Your task to perform on an android device: toggle notification dots Image 0: 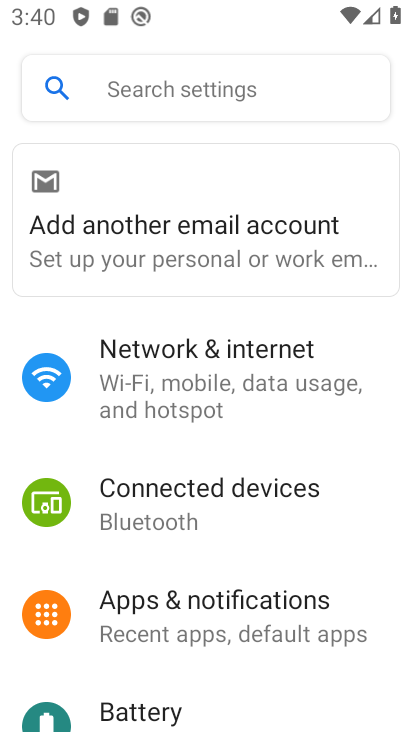
Step 0: drag from (380, 566) to (380, 384)
Your task to perform on an android device: toggle notification dots Image 1: 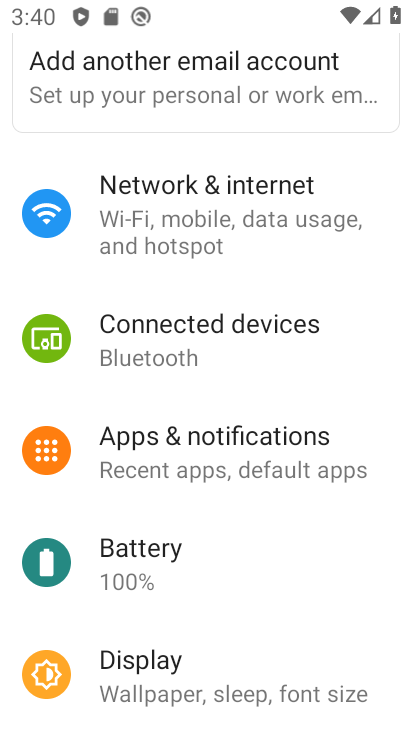
Step 1: drag from (356, 613) to (378, 394)
Your task to perform on an android device: toggle notification dots Image 2: 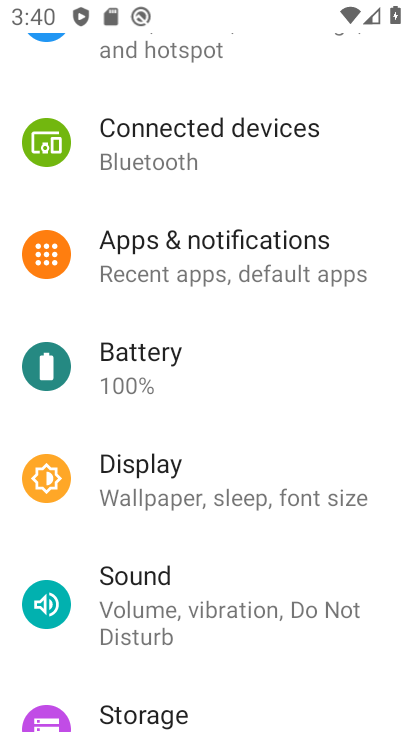
Step 2: drag from (372, 649) to (379, 454)
Your task to perform on an android device: toggle notification dots Image 3: 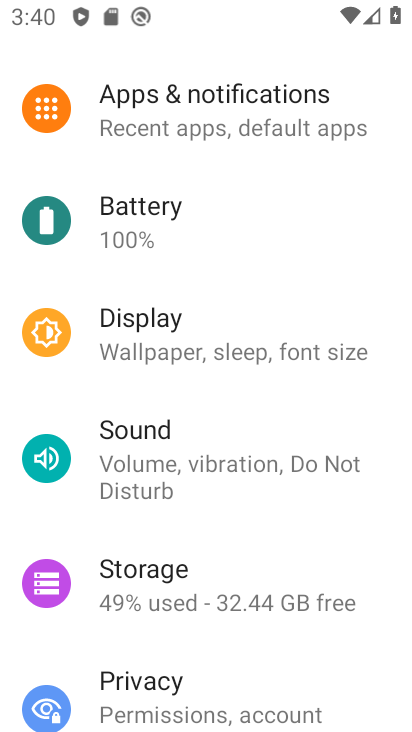
Step 3: drag from (362, 669) to (381, 454)
Your task to perform on an android device: toggle notification dots Image 4: 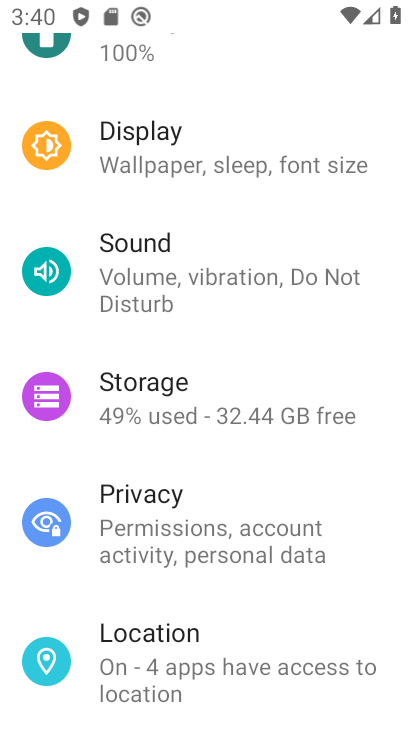
Step 4: drag from (369, 634) to (380, 439)
Your task to perform on an android device: toggle notification dots Image 5: 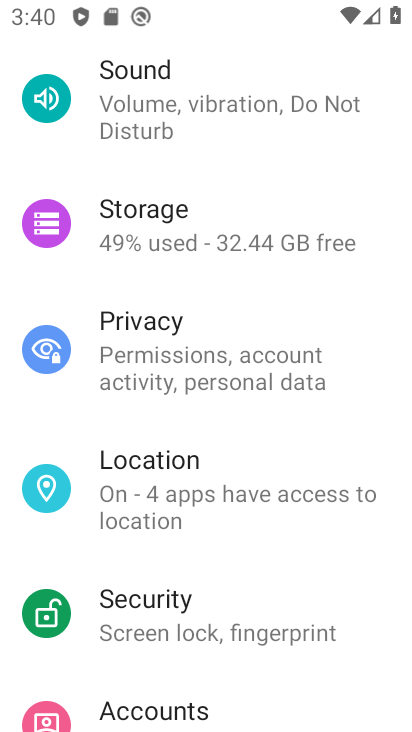
Step 5: drag from (353, 670) to (343, 314)
Your task to perform on an android device: toggle notification dots Image 6: 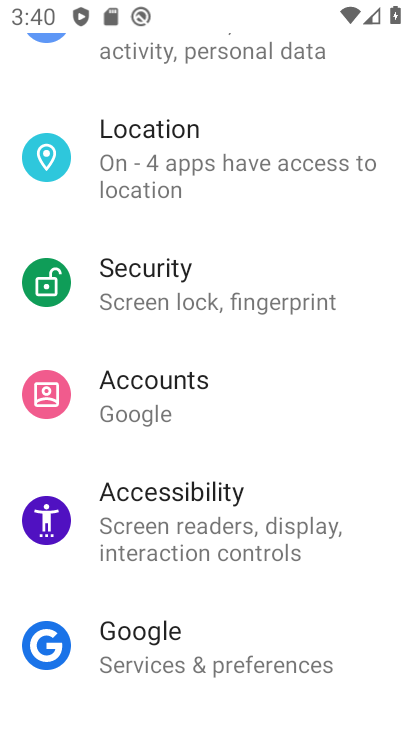
Step 6: drag from (372, 398) to (374, 503)
Your task to perform on an android device: toggle notification dots Image 7: 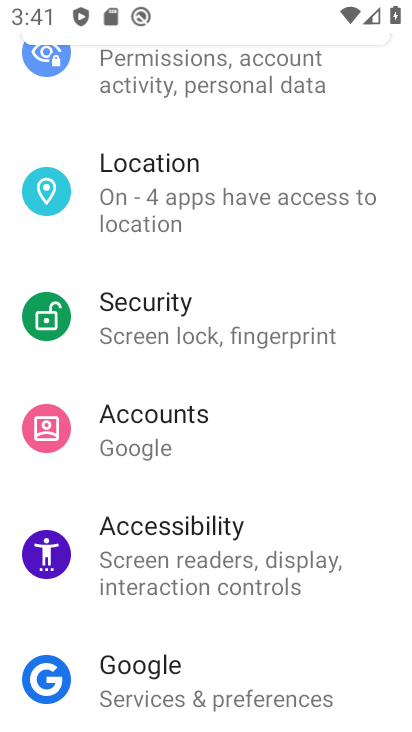
Step 7: drag from (374, 385) to (373, 518)
Your task to perform on an android device: toggle notification dots Image 8: 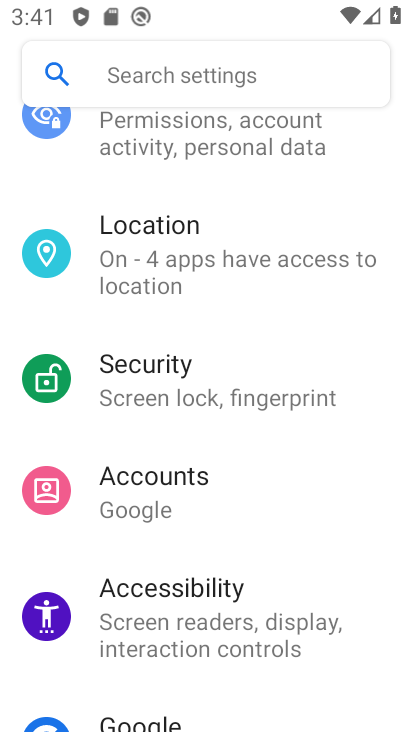
Step 8: drag from (360, 340) to (354, 575)
Your task to perform on an android device: toggle notification dots Image 9: 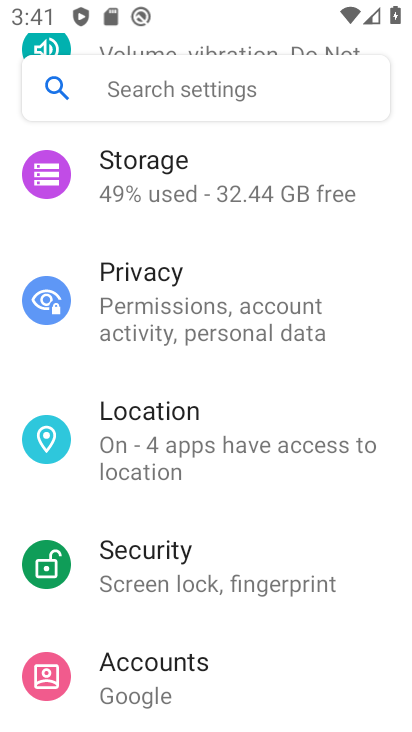
Step 9: drag from (354, 283) to (344, 516)
Your task to perform on an android device: toggle notification dots Image 10: 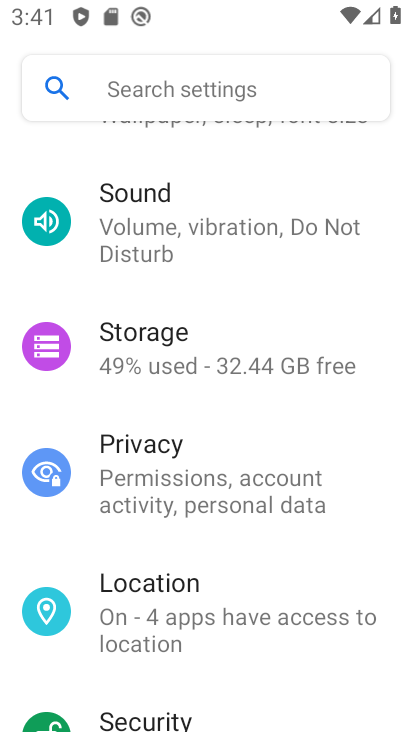
Step 10: drag from (376, 286) to (363, 482)
Your task to perform on an android device: toggle notification dots Image 11: 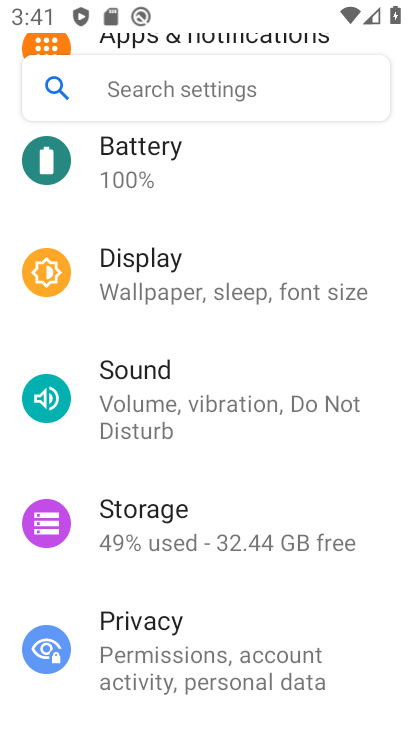
Step 11: drag from (363, 304) to (353, 497)
Your task to perform on an android device: toggle notification dots Image 12: 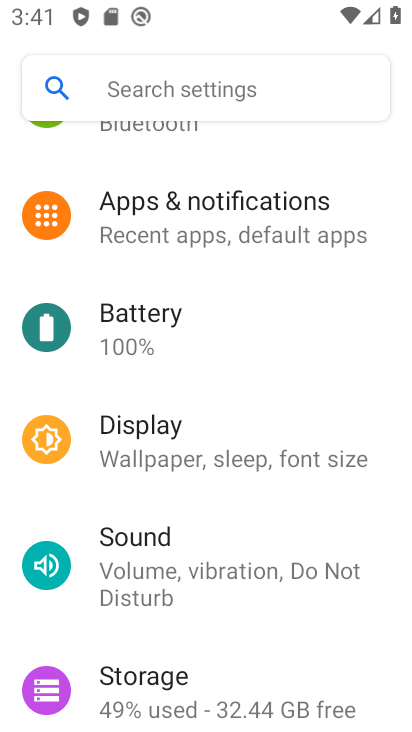
Step 12: click (282, 223)
Your task to perform on an android device: toggle notification dots Image 13: 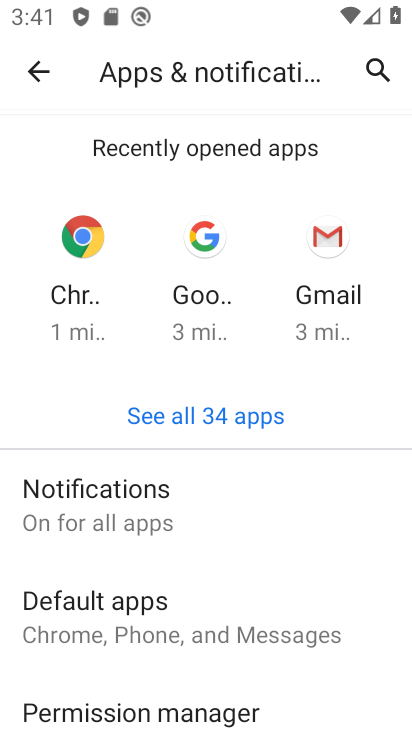
Step 13: click (144, 521)
Your task to perform on an android device: toggle notification dots Image 14: 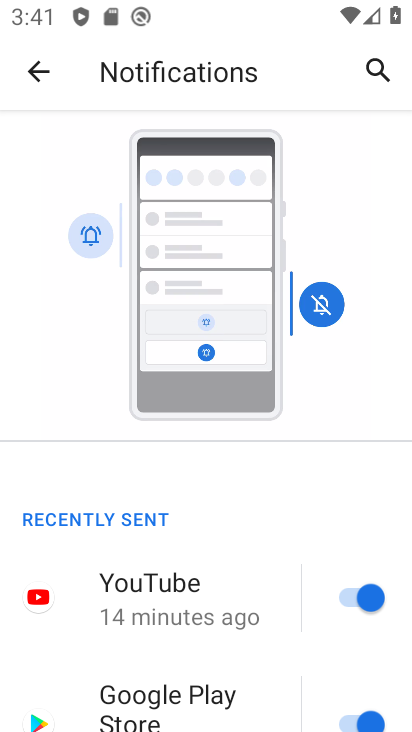
Step 14: drag from (277, 651) to (271, 413)
Your task to perform on an android device: toggle notification dots Image 15: 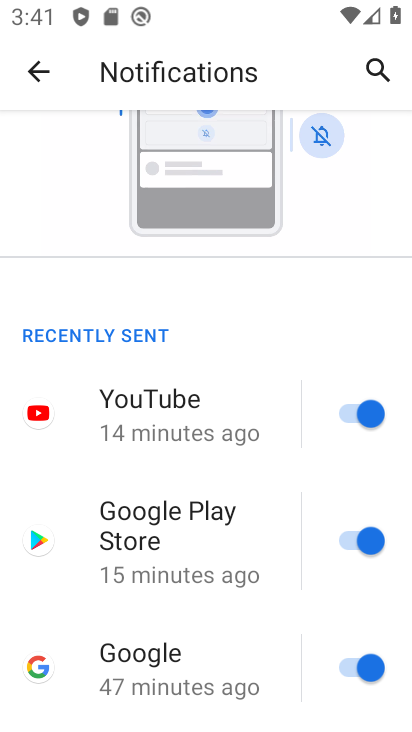
Step 15: drag from (265, 553) to (275, 303)
Your task to perform on an android device: toggle notification dots Image 16: 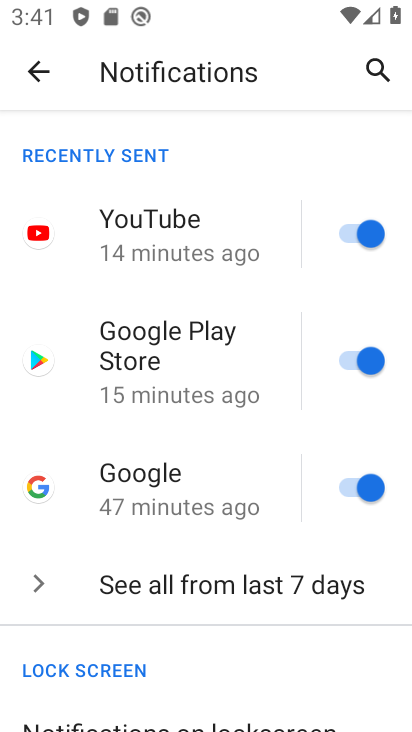
Step 16: drag from (238, 640) to (258, 360)
Your task to perform on an android device: toggle notification dots Image 17: 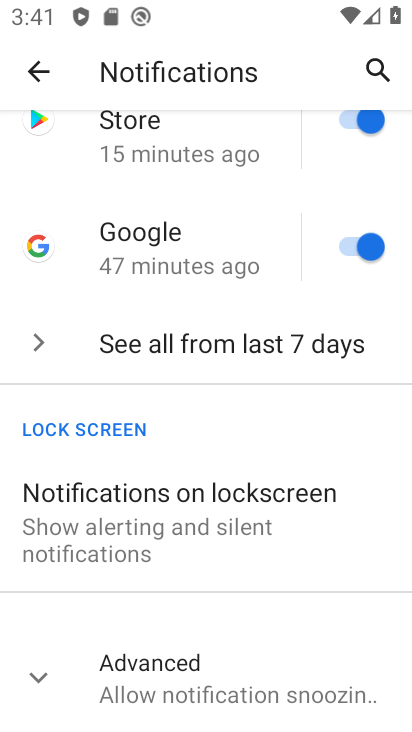
Step 17: click (196, 668)
Your task to perform on an android device: toggle notification dots Image 18: 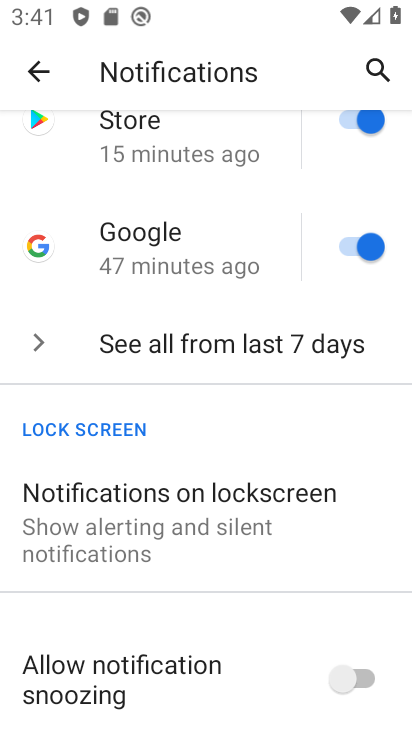
Step 18: drag from (256, 679) to (257, 442)
Your task to perform on an android device: toggle notification dots Image 19: 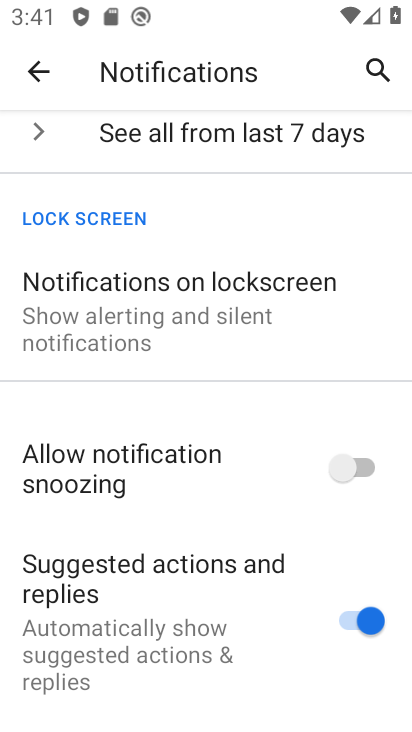
Step 19: drag from (257, 671) to (256, 448)
Your task to perform on an android device: toggle notification dots Image 20: 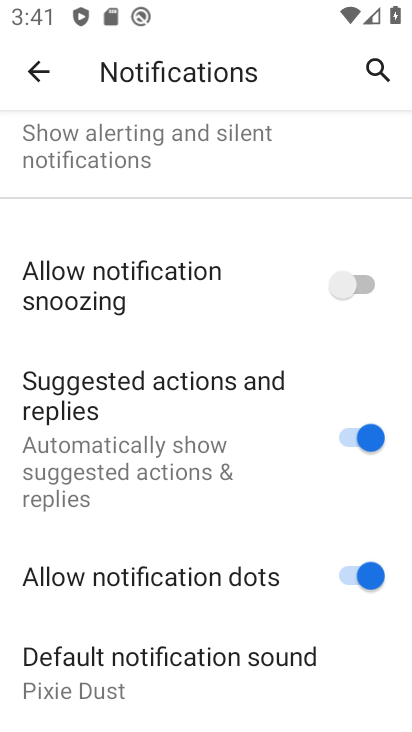
Step 20: click (380, 573)
Your task to perform on an android device: toggle notification dots Image 21: 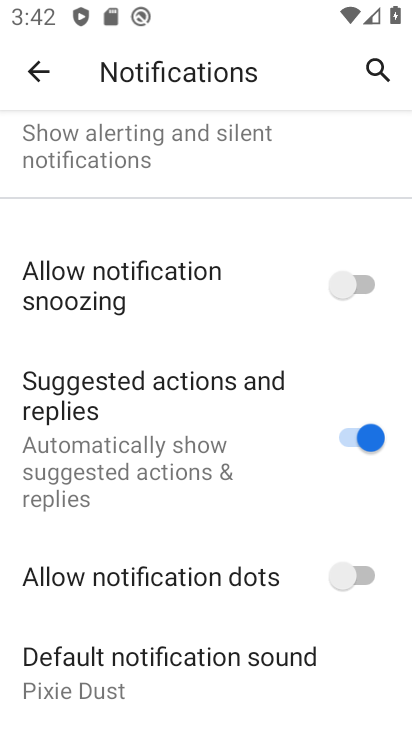
Step 21: task complete